Your task to perform on an android device: turn off javascript in the chrome app Image 0: 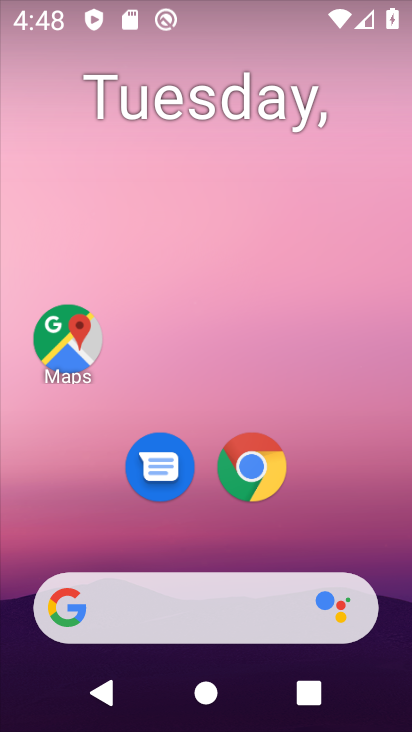
Step 0: click (278, 472)
Your task to perform on an android device: turn off javascript in the chrome app Image 1: 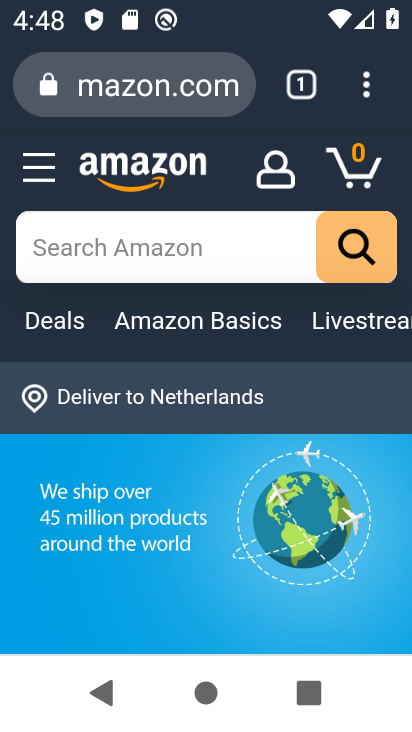
Step 1: drag from (365, 89) to (171, 523)
Your task to perform on an android device: turn off javascript in the chrome app Image 2: 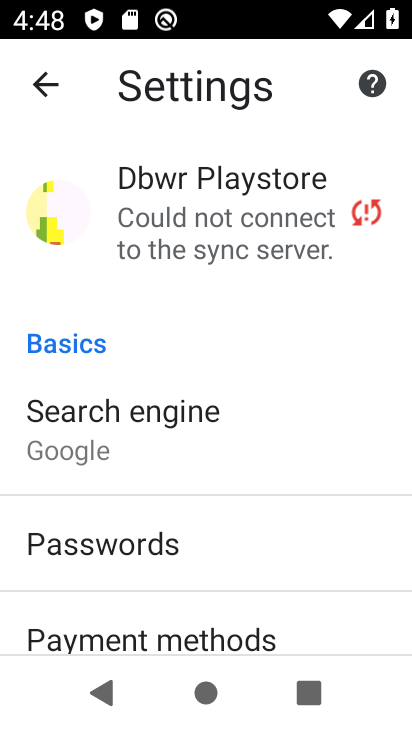
Step 2: drag from (146, 572) to (151, 338)
Your task to perform on an android device: turn off javascript in the chrome app Image 3: 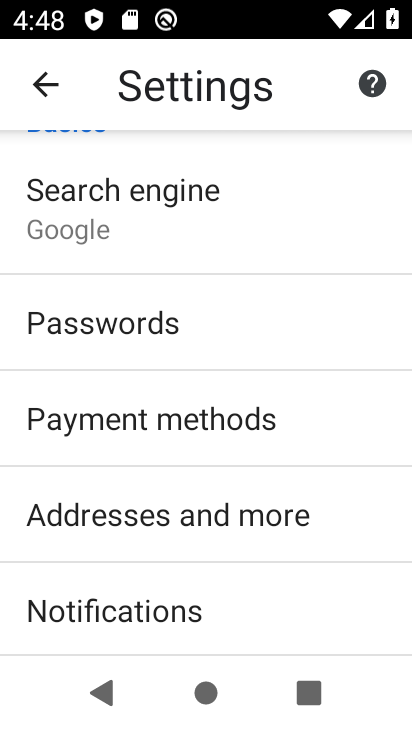
Step 3: drag from (174, 544) to (188, 296)
Your task to perform on an android device: turn off javascript in the chrome app Image 4: 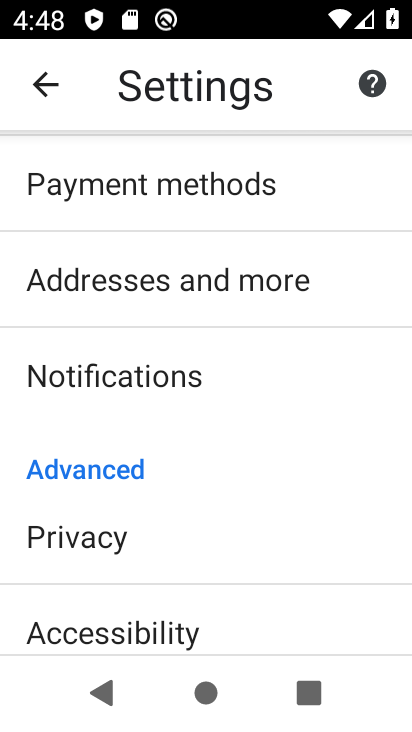
Step 4: drag from (149, 553) to (155, 303)
Your task to perform on an android device: turn off javascript in the chrome app Image 5: 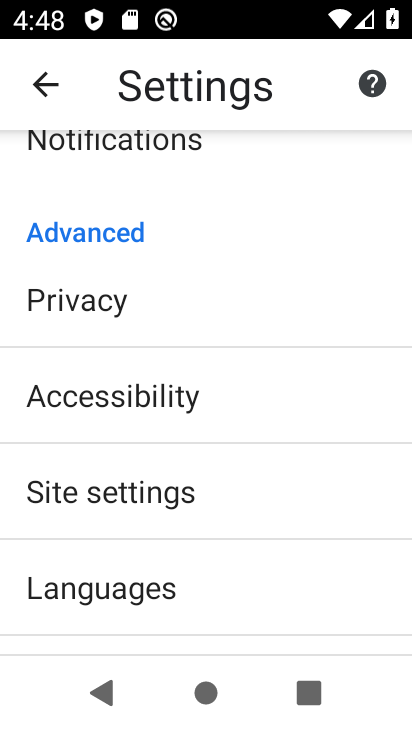
Step 5: drag from (141, 519) to (150, 380)
Your task to perform on an android device: turn off javascript in the chrome app Image 6: 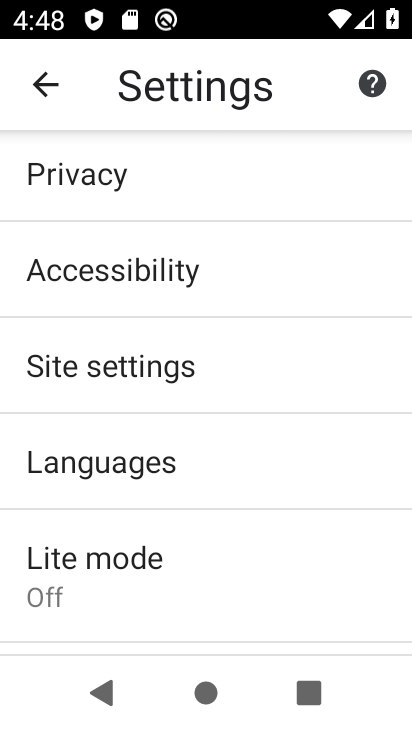
Step 6: click (150, 380)
Your task to perform on an android device: turn off javascript in the chrome app Image 7: 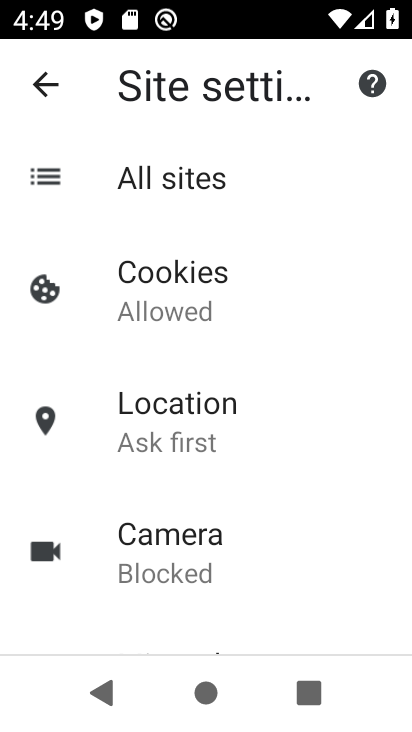
Step 7: drag from (234, 579) to (272, 244)
Your task to perform on an android device: turn off javascript in the chrome app Image 8: 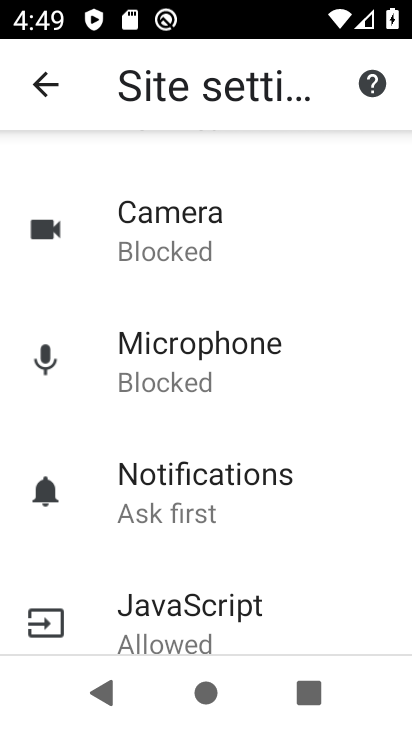
Step 8: click (224, 603)
Your task to perform on an android device: turn off javascript in the chrome app Image 9: 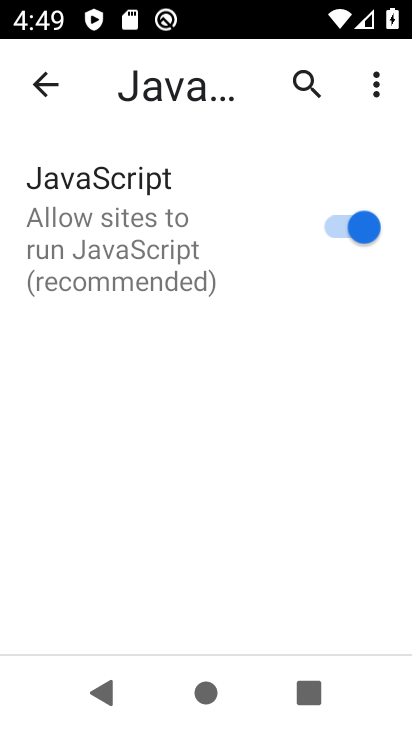
Step 9: click (371, 223)
Your task to perform on an android device: turn off javascript in the chrome app Image 10: 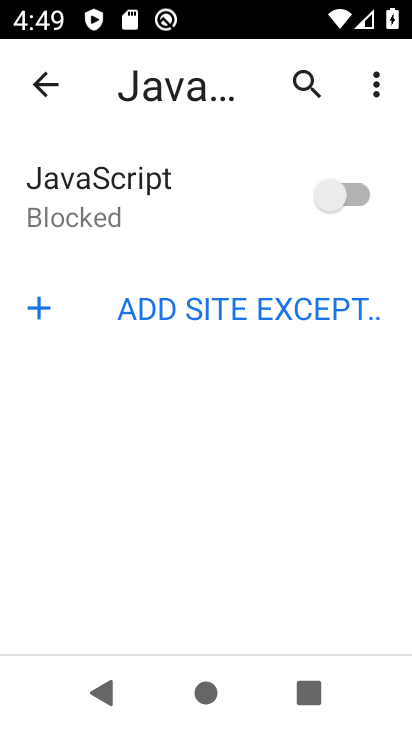
Step 10: task complete